Your task to perform on an android device: Open Chrome and go to settings Image 0: 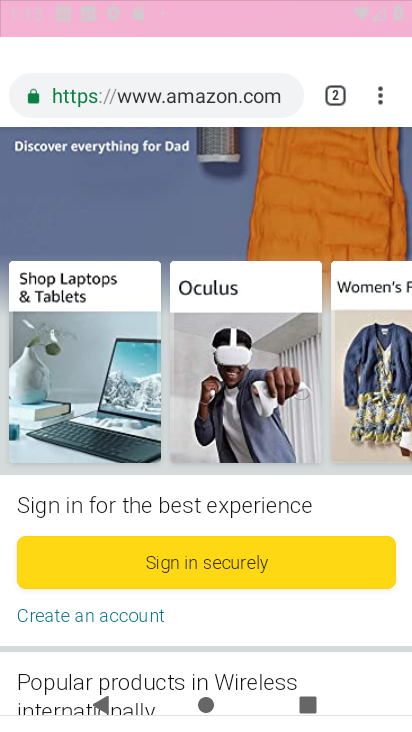
Step 0: click (242, 101)
Your task to perform on an android device: Open Chrome and go to settings Image 1: 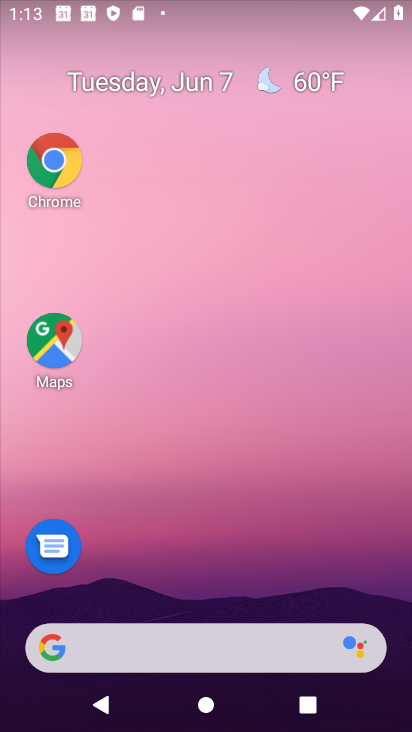
Step 1: drag from (155, 578) to (266, 0)
Your task to perform on an android device: Open Chrome and go to settings Image 2: 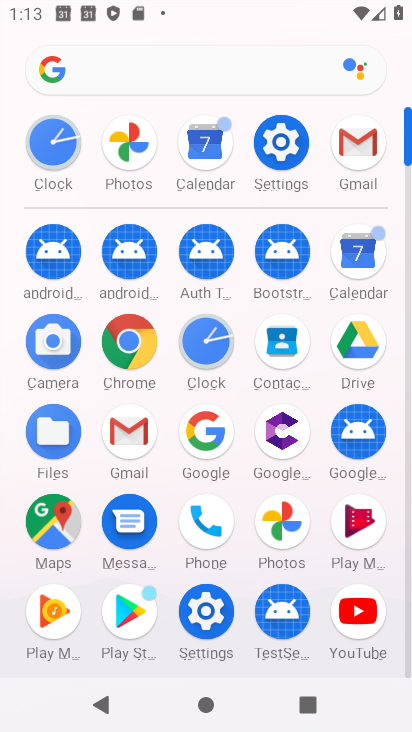
Step 2: click (130, 349)
Your task to perform on an android device: Open Chrome and go to settings Image 3: 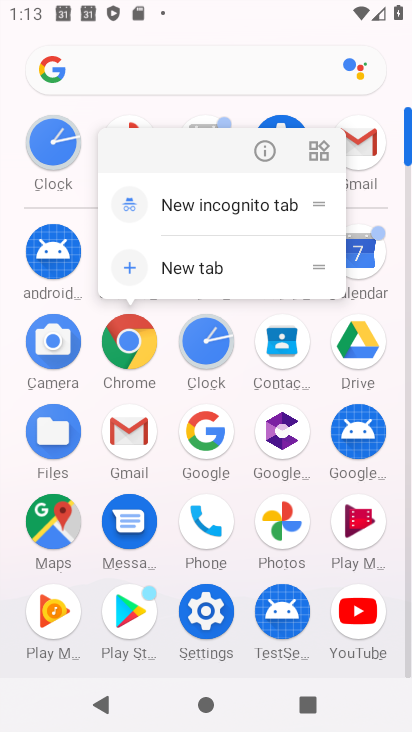
Step 3: click (268, 154)
Your task to perform on an android device: Open Chrome and go to settings Image 4: 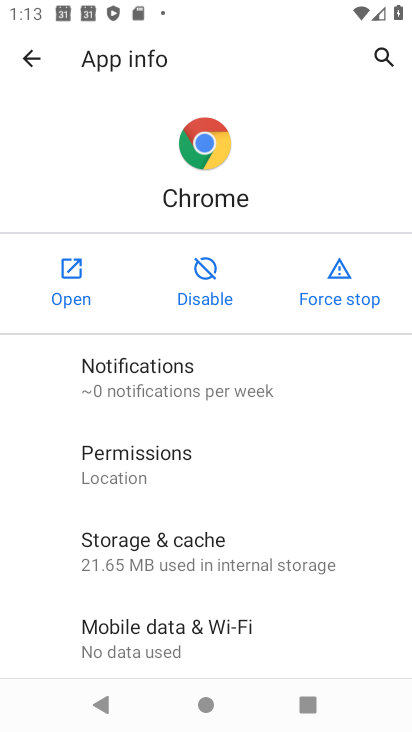
Step 4: click (82, 281)
Your task to perform on an android device: Open Chrome and go to settings Image 5: 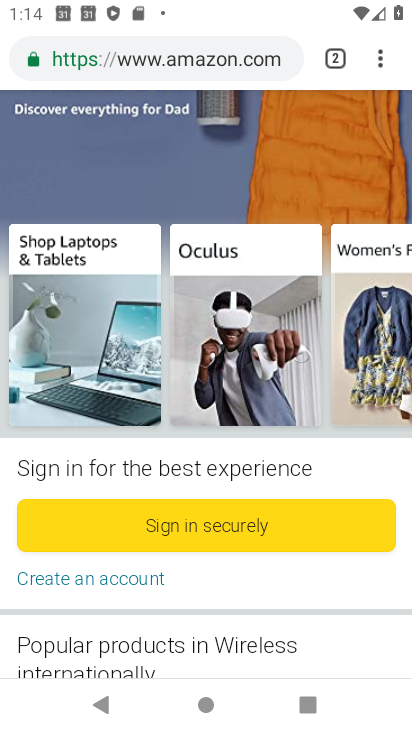
Step 5: task complete